Your task to perform on an android device: check data usage Image 0: 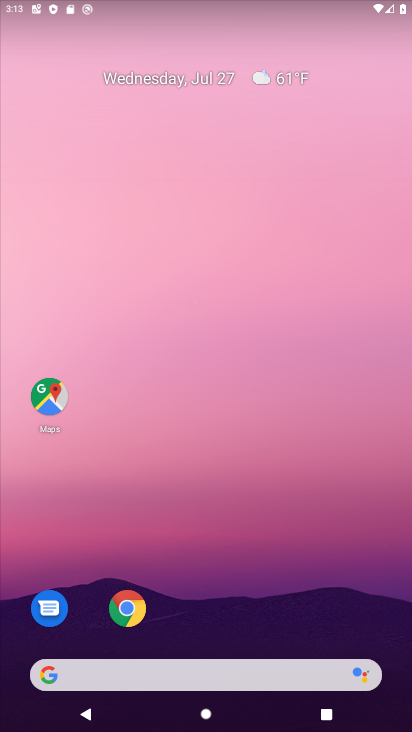
Step 0: drag from (269, 585) to (269, 2)
Your task to perform on an android device: check data usage Image 1: 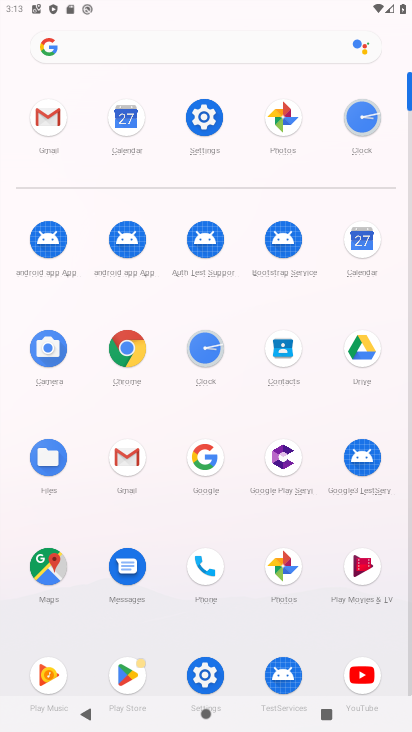
Step 1: click (203, 669)
Your task to perform on an android device: check data usage Image 2: 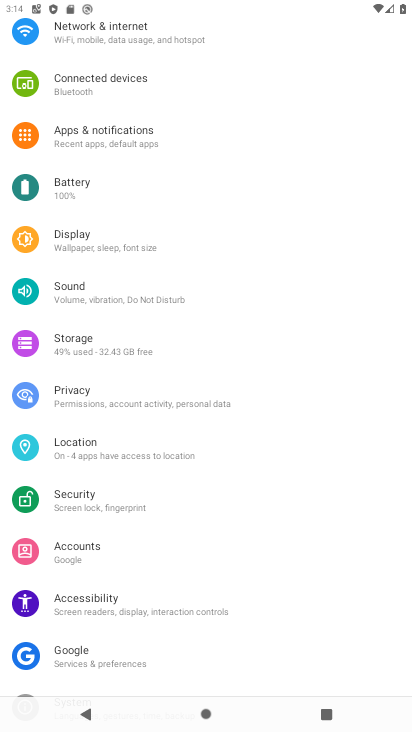
Step 2: click (215, 40)
Your task to perform on an android device: check data usage Image 3: 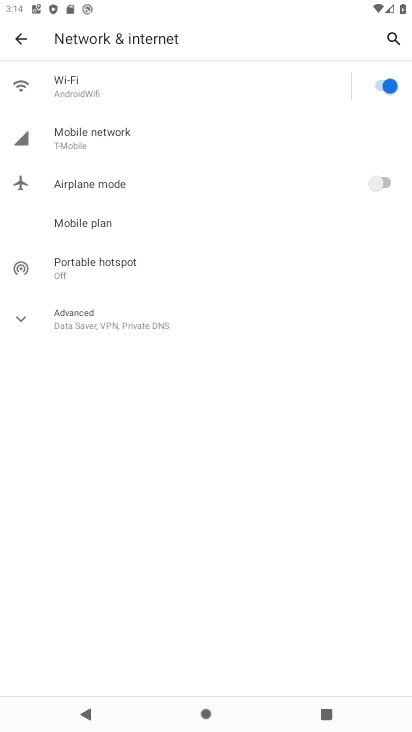
Step 3: click (118, 141)
Your task to perform on an android device: check data usage Image 4: 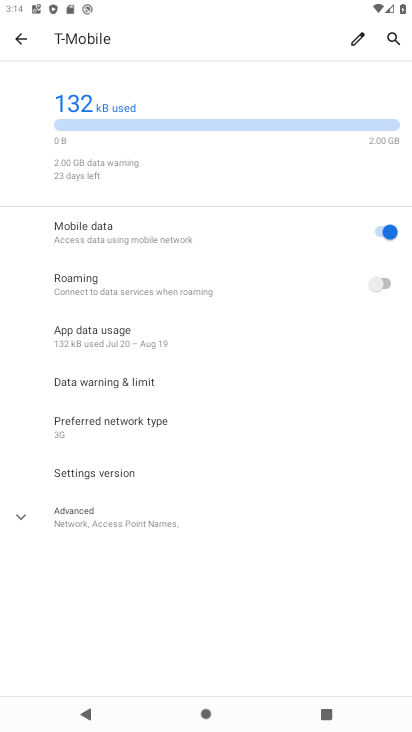
Step 4: click (126, 338)
Your task to perform on an android device: check data usage Image 5: 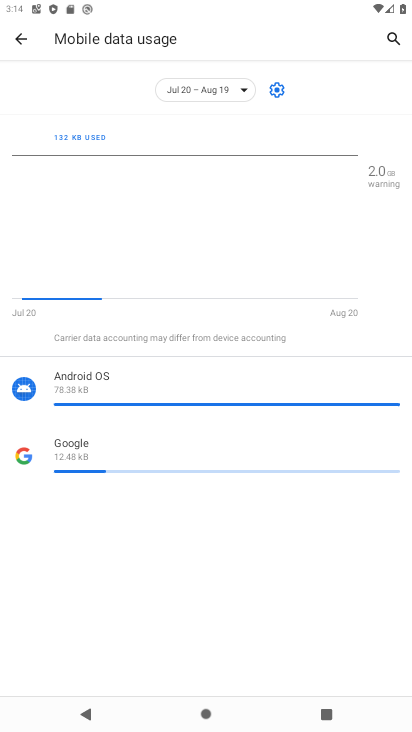
Step 5: task complete